Your task to perform on an android device: set the stopwatch Image 0: 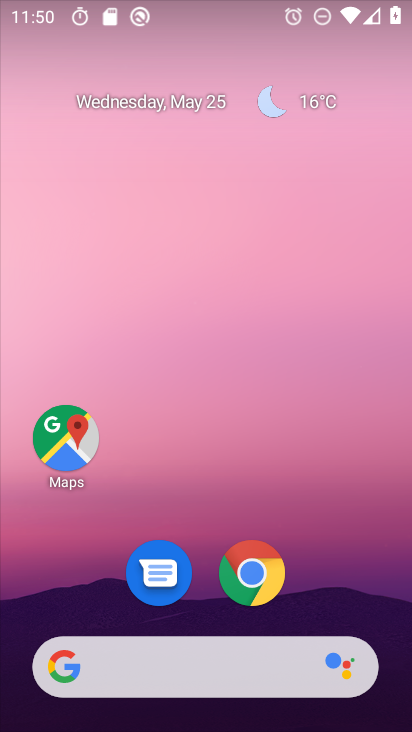
Step 0: drag from (360, 539) to (348, 10)
Your task to perform on an android device: set the stopwatch Image 1: 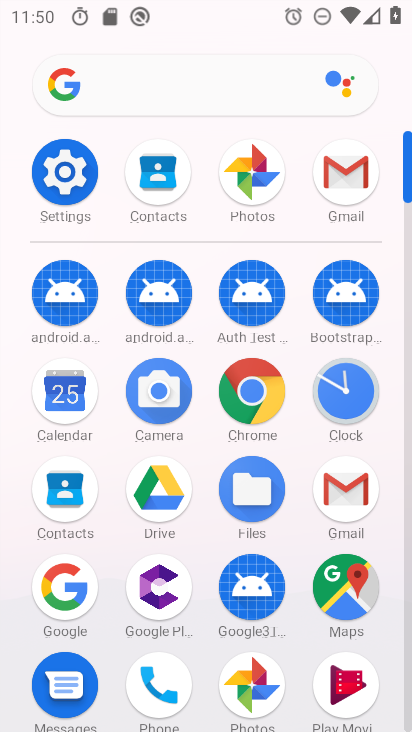
Step 1: click (334, 393)
Your task to perform on an android device: set the stopwatch Image 2: 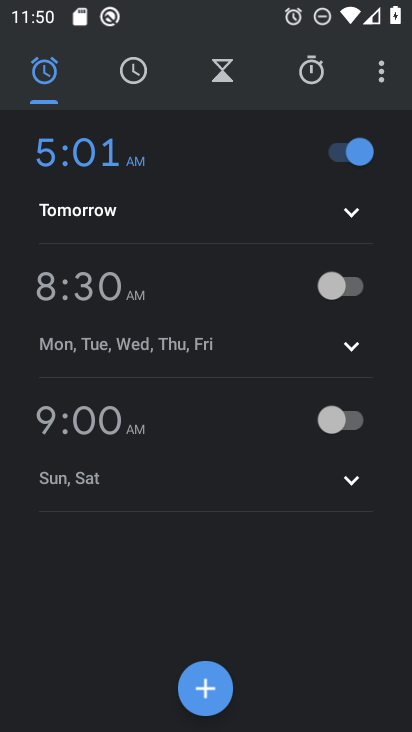
Step 2: click (322, 76)
Your task to perform on an android device: set the stopwatch Image 3: 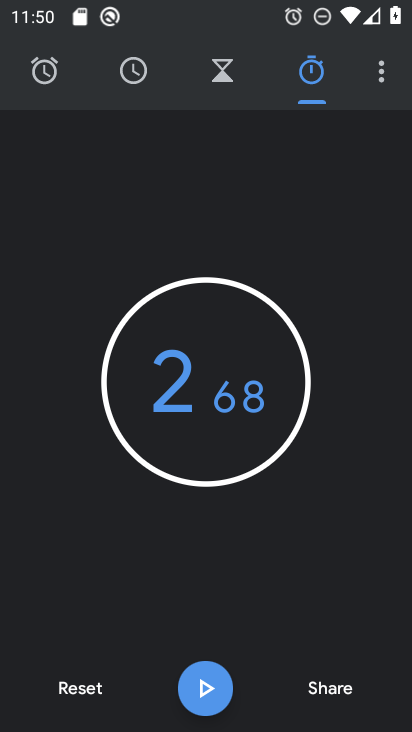
Step 3: click (94, 690)
Your task to perform on an android device: set the stopwatch Image 4: 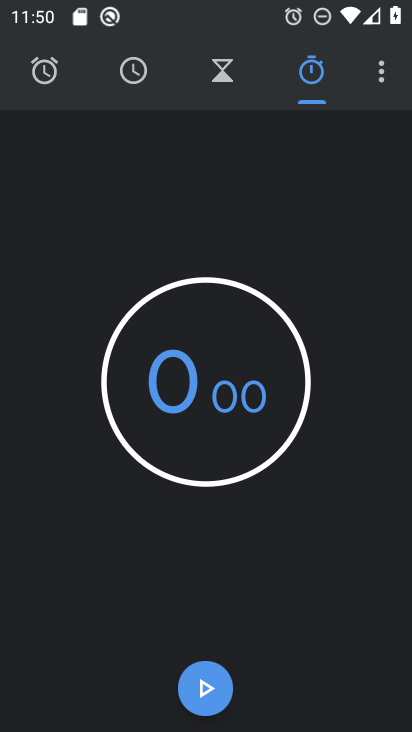
Step 4: click (193, 691)
Your task to perform on an android device: set the stopwatch Image 5: 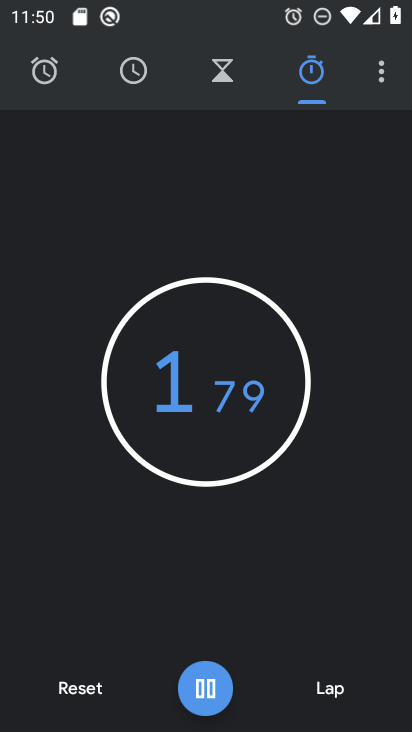
Step 5: click (195, 690)
Your task to perform on an android device: set the stopwatch Image 6: 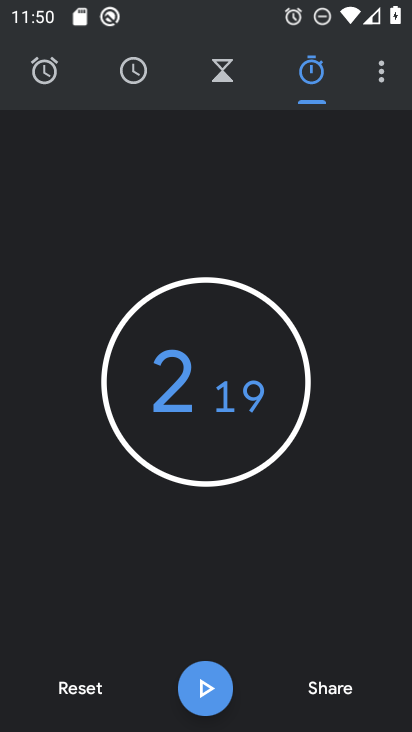
Step 6: task complete